Your task to perform on an android device: show emergency info Image 0: 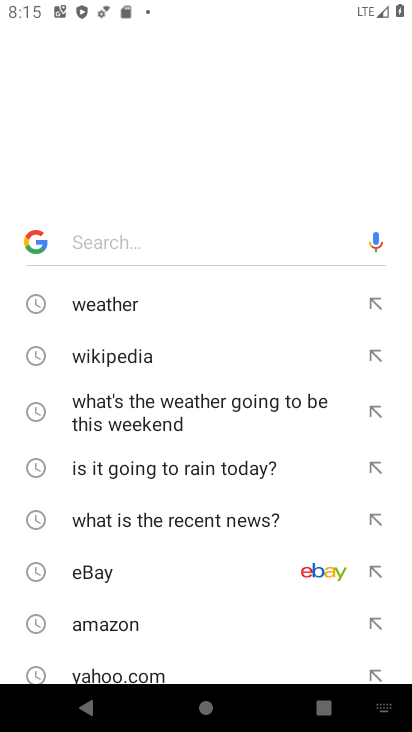
Step 0: press home button
Your task to perform on an android device: show emergency info Image 1: 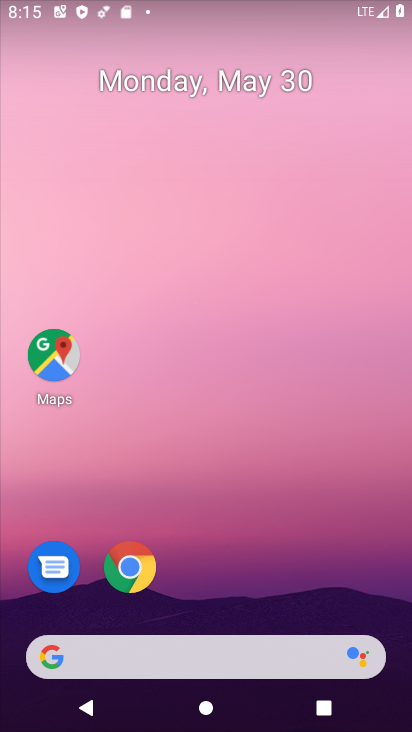
Step 1: drag from (272, 596) to (264, 136)
Your task to perform on an android device: show emergency info Image 2: 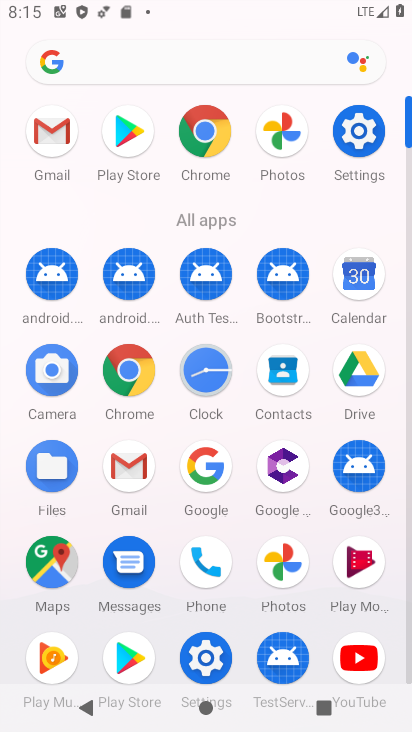
Step 2: click (345, 136)
Your task to perform on an android device: show emergency info Image 3: 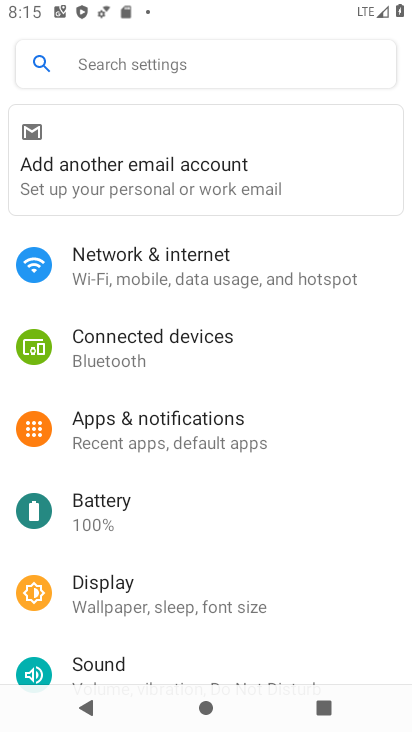
Step 3: task complete